Your task to perform on an android device: turn off location history Image 0: 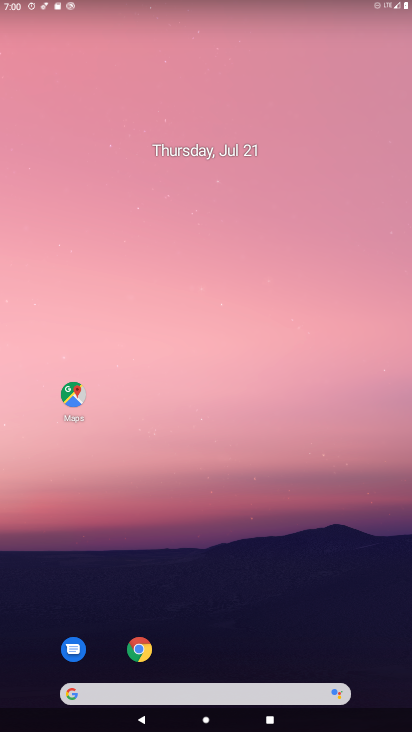
Step 0: drag from (349, 626) to (179, 55)
Your task to perform on an android device: turn off location history Image 1: 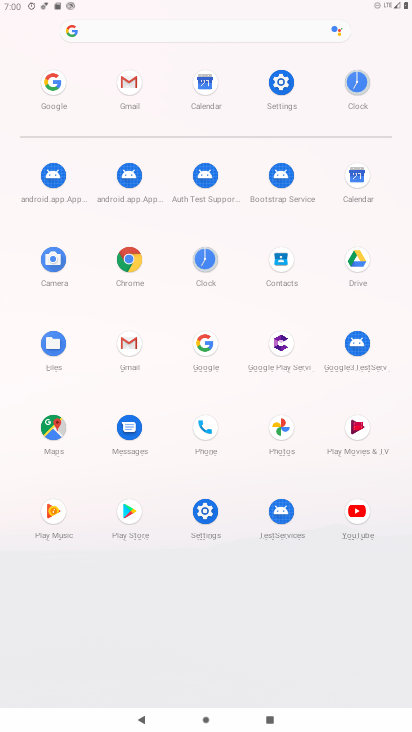
Step 1: click (207, 511)
Your task to perform on an android device: turn off location history Image 2: 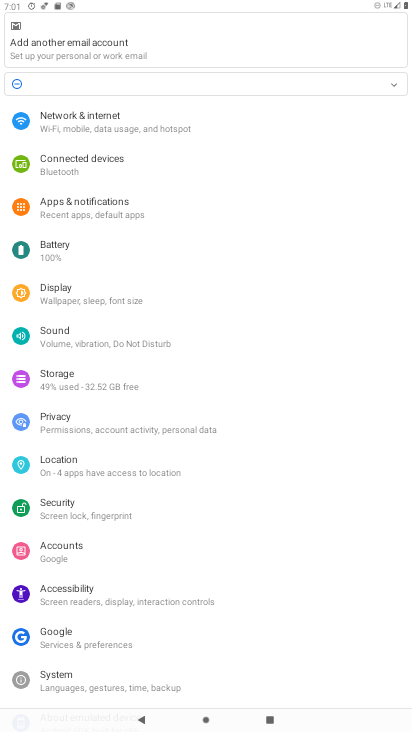
Step 2: click (76, 460)
Your task to perform on an android device: turn off location history Image 3: 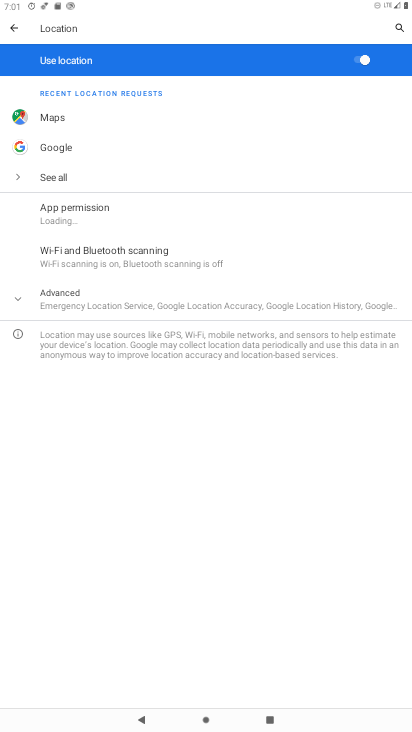
Step 3: click (59, 296)
Your task to perform on an android device: turn off location history Image 4: 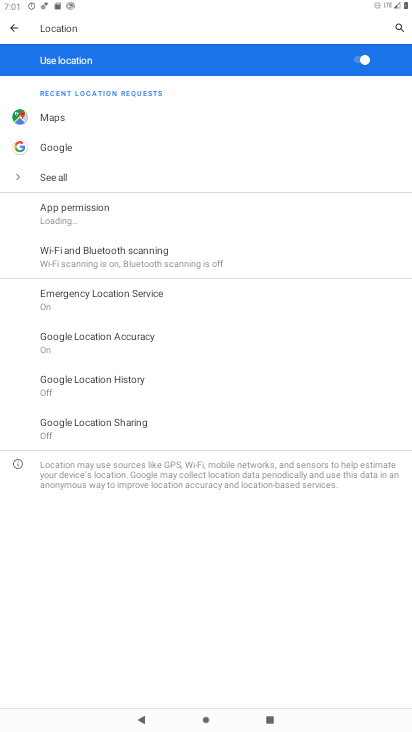
Step 4: click (126, 382)
Your task to perform on an android device: turn off location history Image 5: 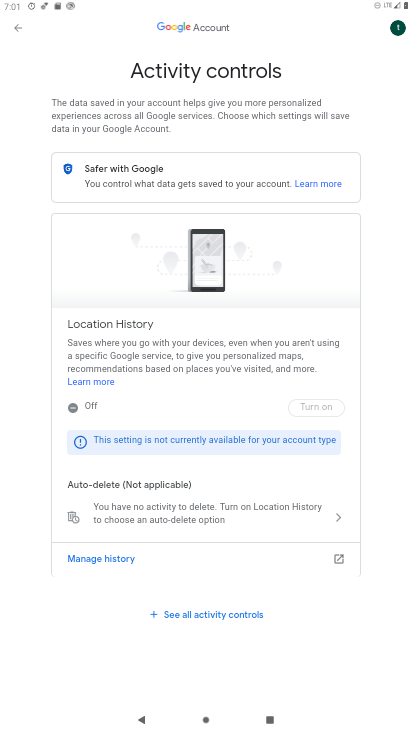
Step 5: click (317, 408)
Your task to perform on an android device: turn off location history Image 6: 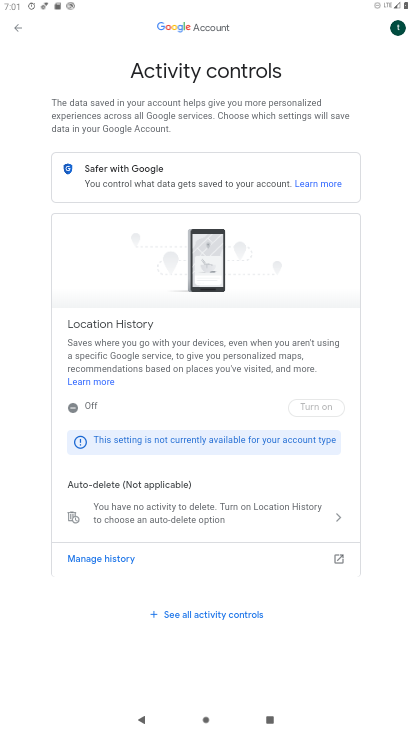
Step 6: task complete